Your task to perform on an android device: change the clock display to analog Image 0: 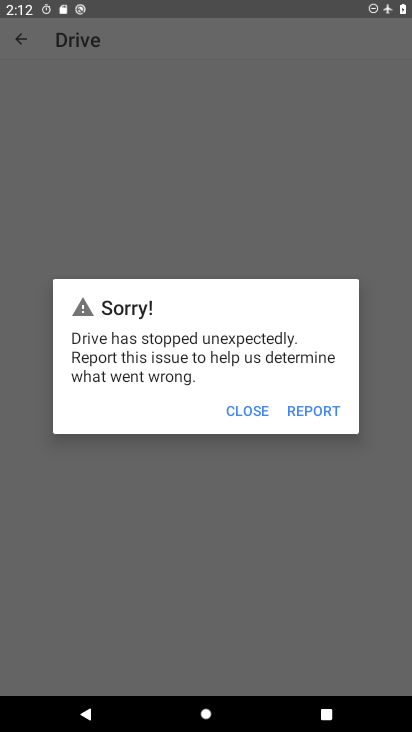
Step 0: press home button
Your task to perform on an android device: change the clock display to analog Image 1: 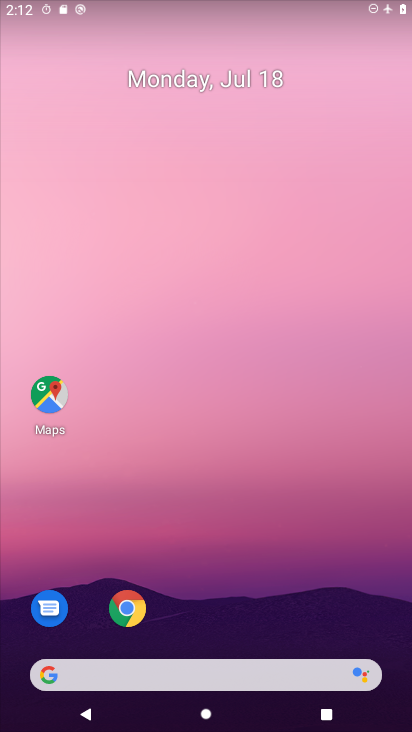
Step 1: drag from (244, 726) to (250, 102)
Your task to perform on an android device: change the clock display to analog Image 2: 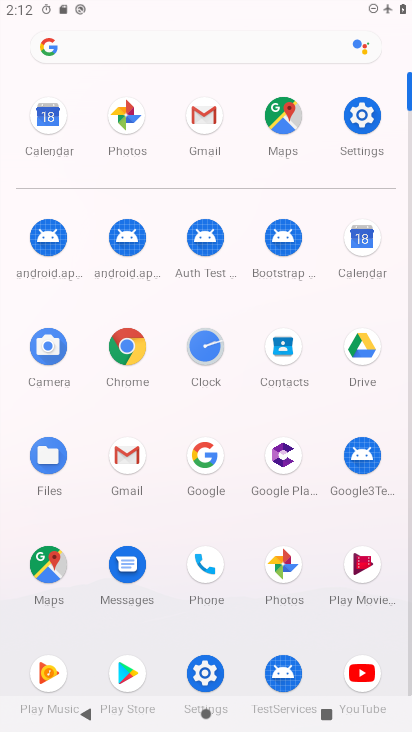
Step 2: click (208, 347)
Your task to perform on an android device: change the clock display to analog Image 3: 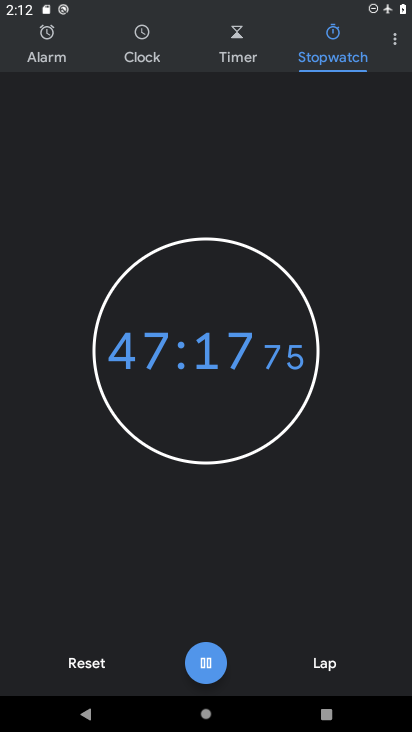
Step 3: click (396, 47)
Your task to perform on an android device: change the clock display to analog Image 4: 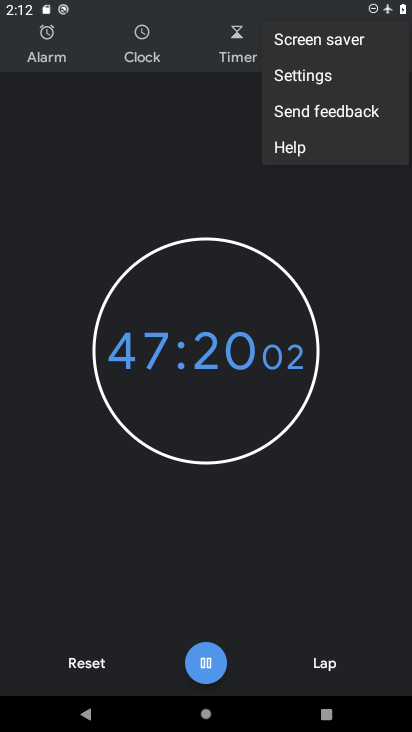
Step 4: click (307, 72)
Your task to perform on an android device: change the clock display to analog Image 5: 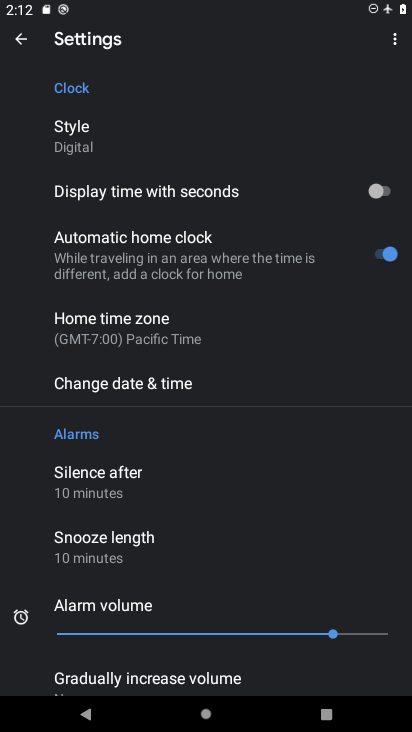
Step 5: click (82, 132)
Your task to perform on an android device: change the clock display to analog Image 6: 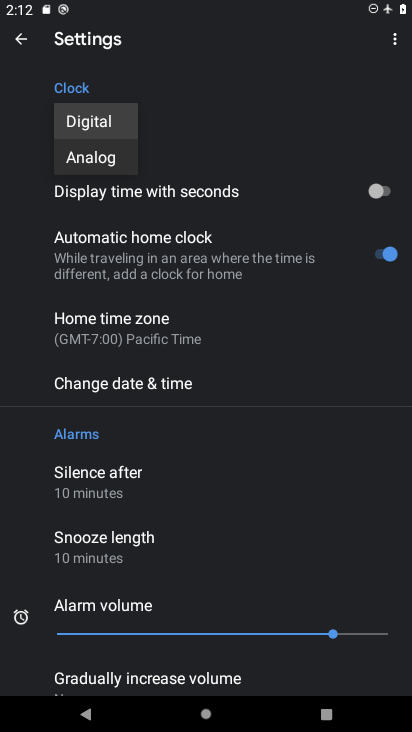
Step 6: click (91, 159)
Your task to perform on an android device: change the clock display to analog Image 7: 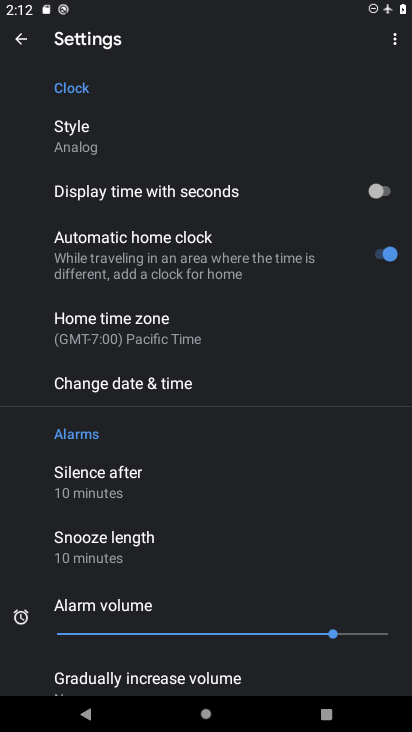
Step 7: task complete